Your task to perform on an android device: turn on wifi Image 0: 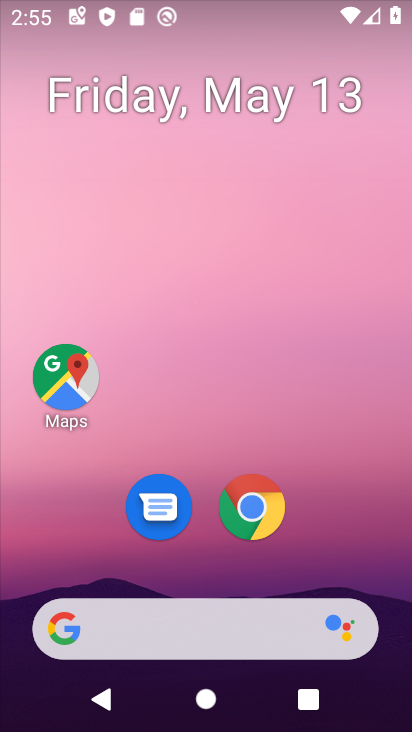
Step 0: drag from (352, 451) to (284, 63)
Your task to perform on an android device: turn on wifi Image 1: 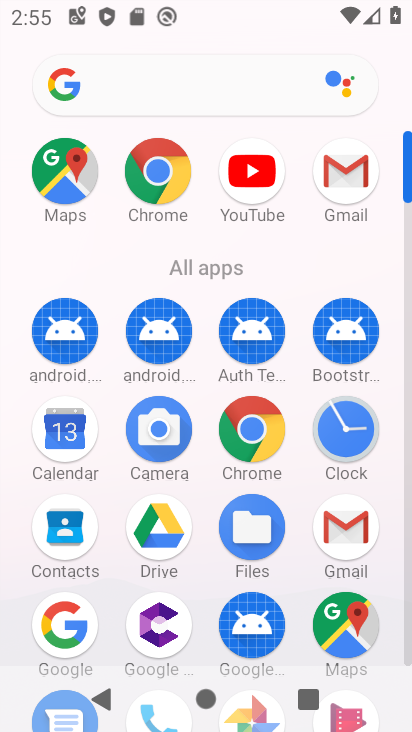
Step 1: drag from (206, 546) to (199, 228)
Your task to perform on an android device: turn on wifi Image 2: 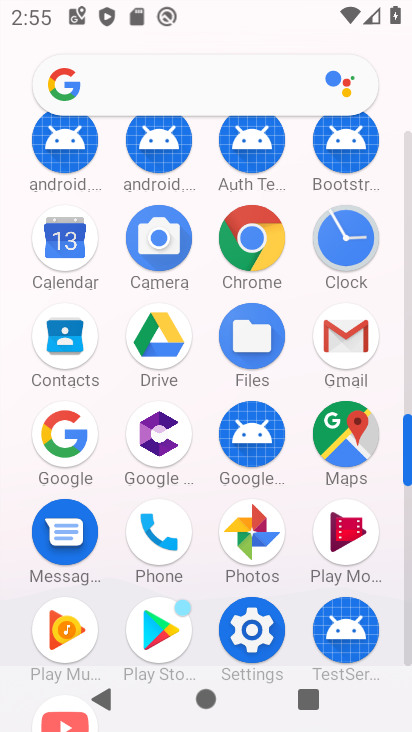
Step 2: click (227, 630)
Your task to perform on an android device: turn on wifi Image 3: 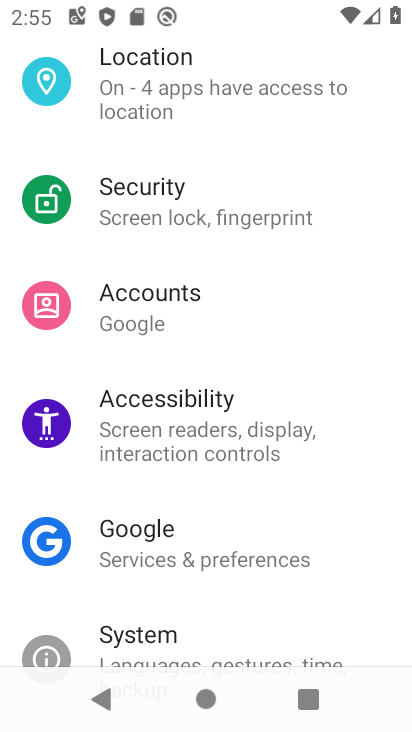
Step 3: drag from (231, 242) to (215, 671)
Your task to perform on an android device: turn on wifi Image 4: 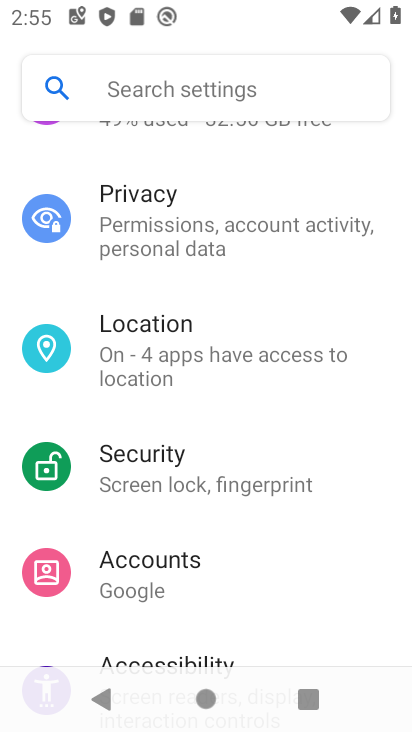
Step 4: drag from (210, 290) to (216, 592)
Your task to perform on an android device: turn on wifi Image 5: 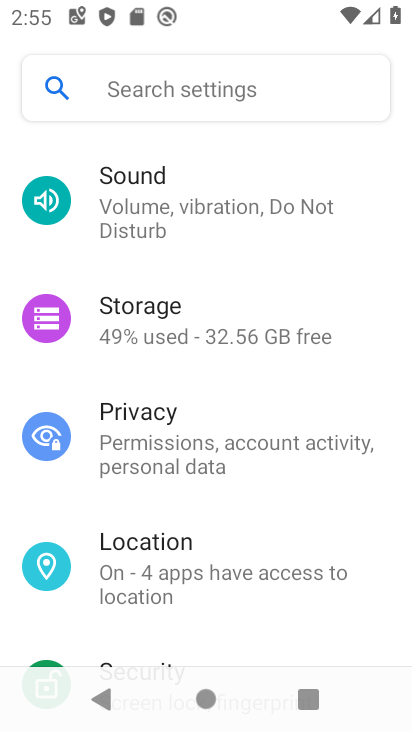
Step 5: drag from (219, 207) to (213, 585)
Your task to perform on an android device: turn on wifi Image 6: 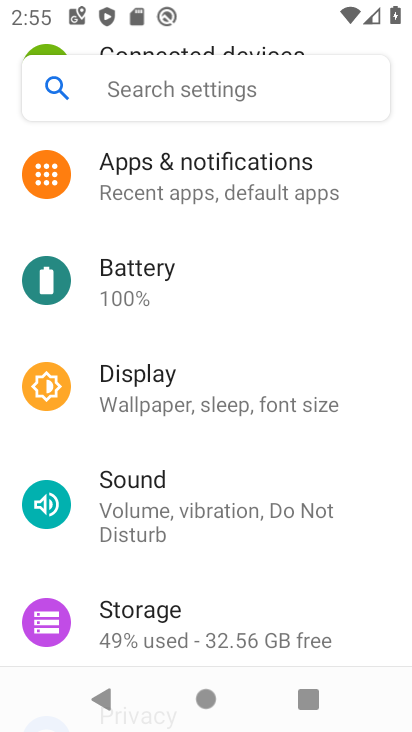
Step 6: drag from (174, 195) to (152, 546)
Your task to perform on an android device: turn on wifi Image 7: 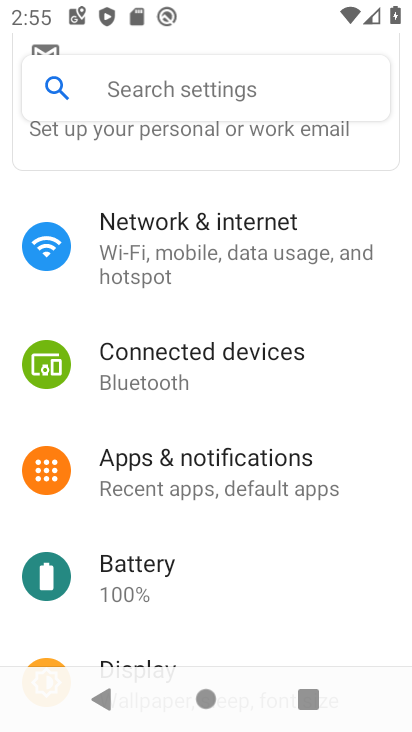
Step 7: click (189, 255)
Your task to perform on an android device: turn on wifi Image 8: 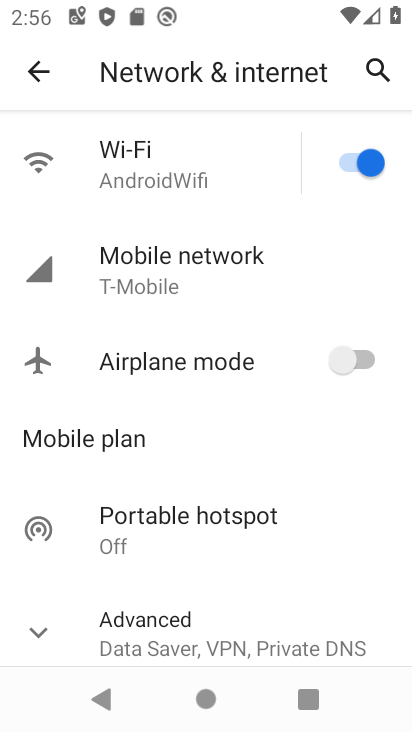
Step 8: task complete